Your task to perform on an android device: What's the weather going to be this weekend? Image 0: 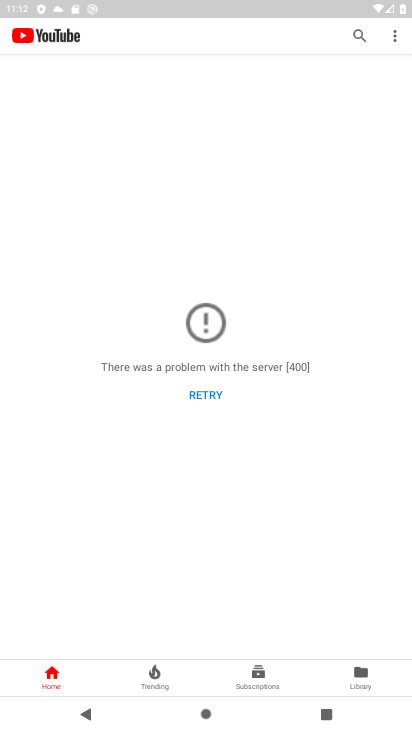
Step 0: press home button
Your task to perform on an android device: What's the weather going to be this weekend? Image 1: 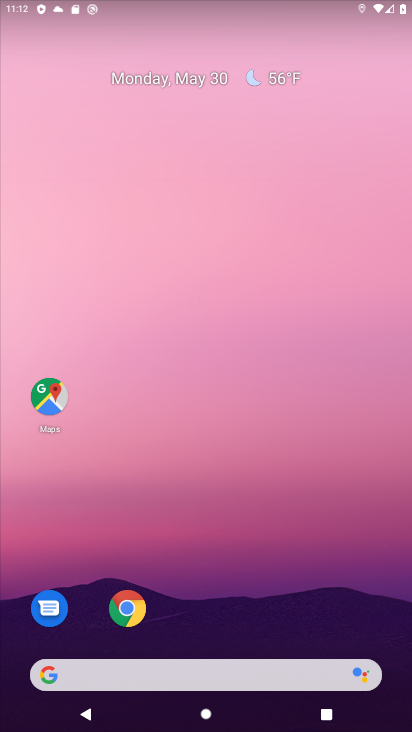
Step 1: click (290, 83)
Your task to perform on an android device: What's the weather going to be this weekend? Image 2: 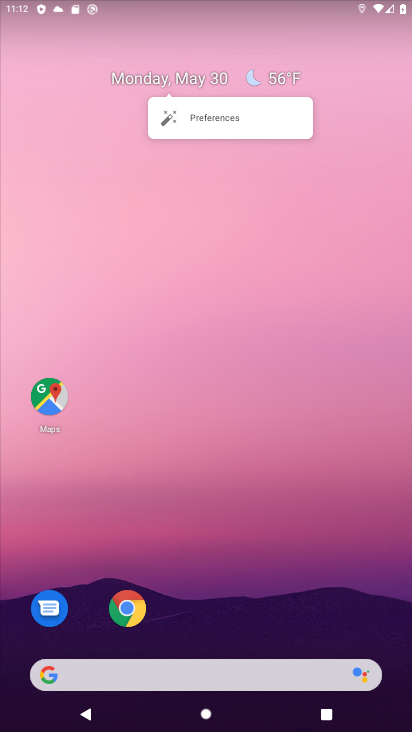
Step 2: click (290, 82)
Your task to perform on an android device: What's the weather going to be this weekend? Image 3: 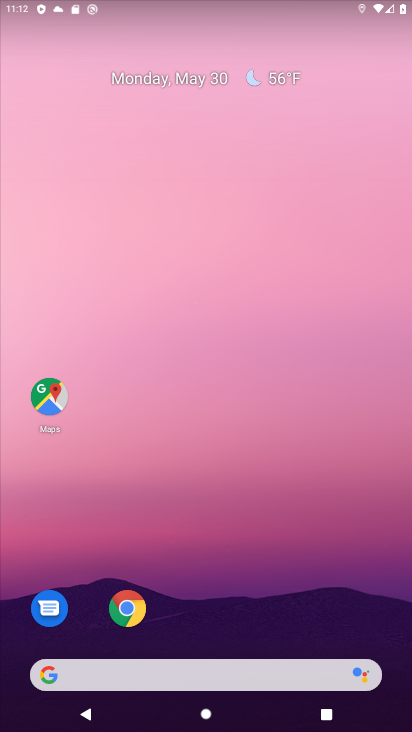
Step 3: click (274, 79)
Your task to perform on an android device: What's the weather going to be this weekend? Image 4: 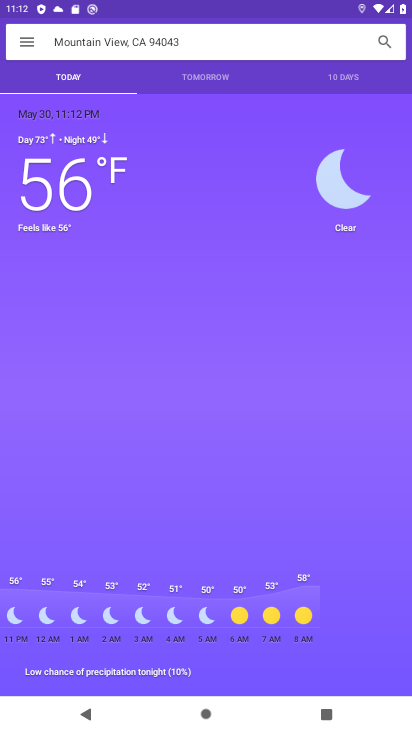
Step 4: click (353, 83)
Your task to perform on an android device: What's the weather going to be this weekend? Image 5: 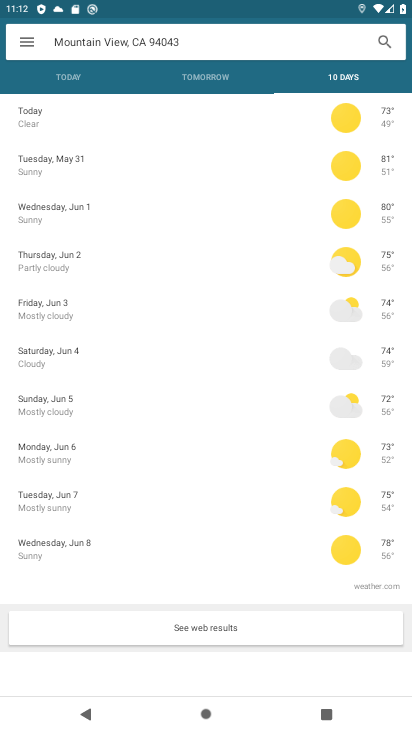
Step 5: task complete